Your task to perform on an android device: clear history in the chrome app Image 0: 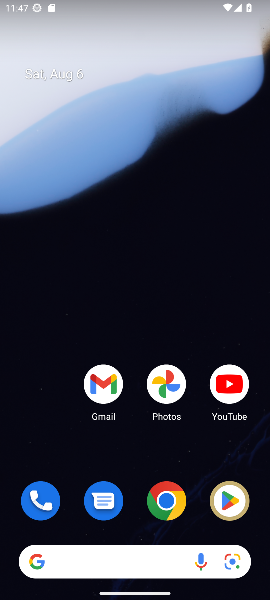
Step 0: click (159, 501)
Your task to perform on an android device: clear history in the chrome app Image 1: 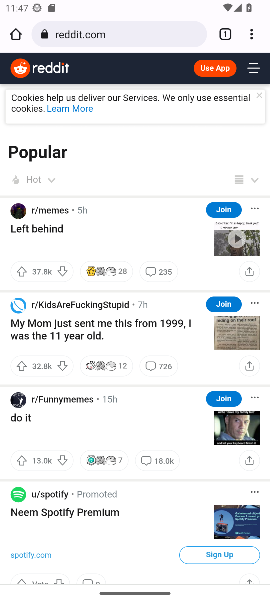
Step 1: click (252, 29)
Your task to perform on an android device: clear history in the chrome app Image 2: 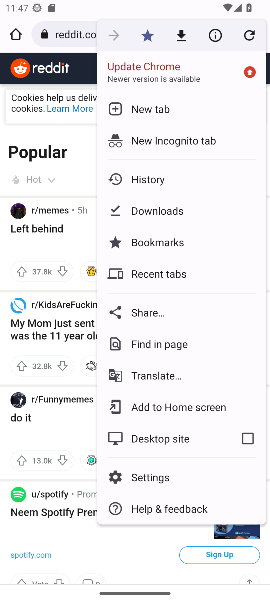
Step 2: click (138, 177)
Your task to perform on an android device: clear history in the chrome app Image 3: 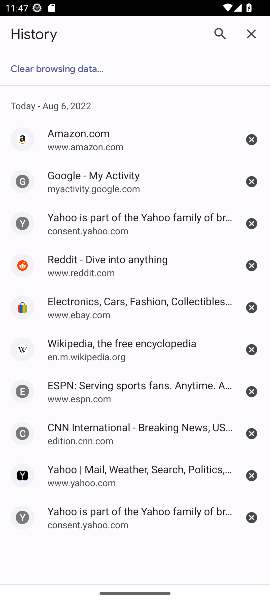
Step 3: click (68, 64)
Your task to perform on an android device: clear history in the chrome app Image 4: 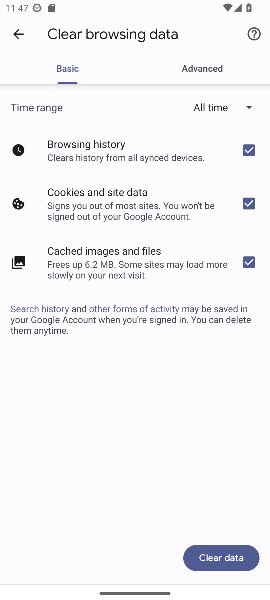
Step 4: click (219, 549)
Your task to perform on an android device: clear history in the chrome app Image 5: 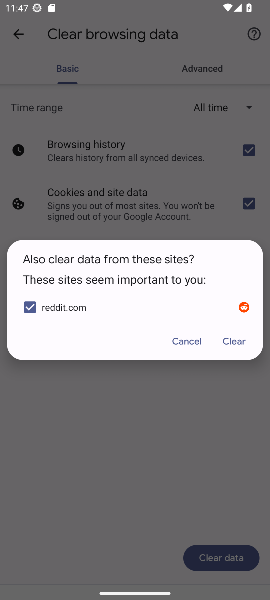
Step 5: click (232, 348)
Your task to perform on an android device: clear history in the chrome app Image 6: 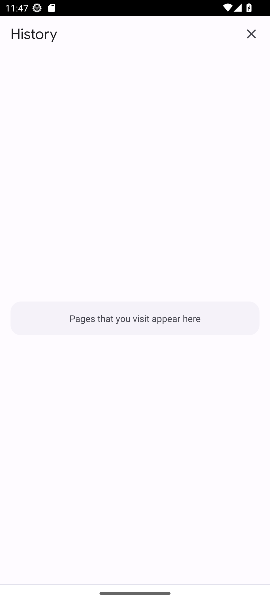
Step 6: task complete